Your task to perform on an android device: make emails show in primary in the gmail app Image 0: 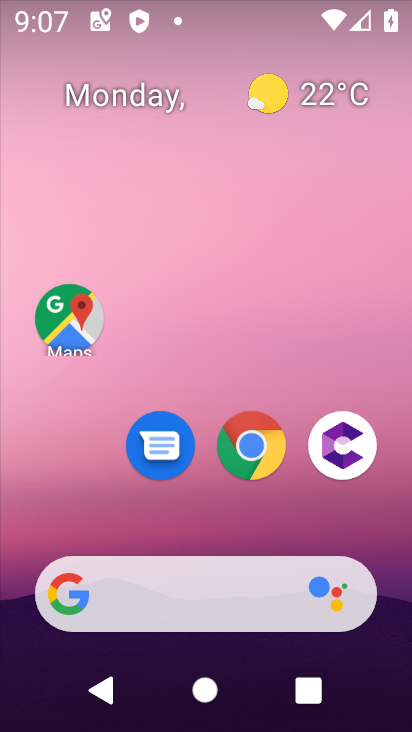
Step 0: press home button
Your task to perform on an android device: make emails show in primary in the gmail app Image 1: 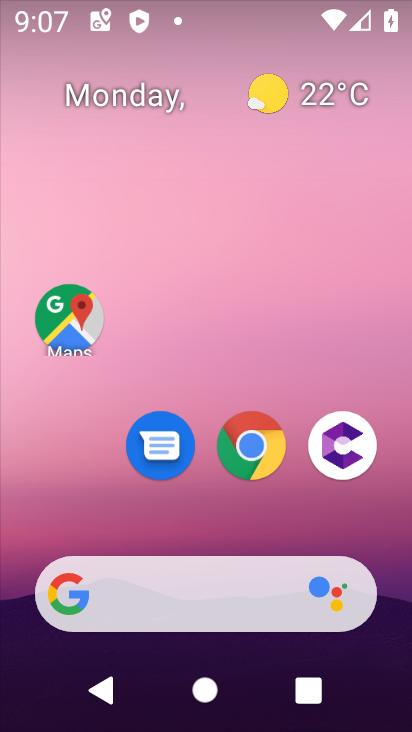
Step 1: drag from (227, 435) to (279, 67)
Your task to perform on an android device: make emails show in primary in the gmail app Image 2: 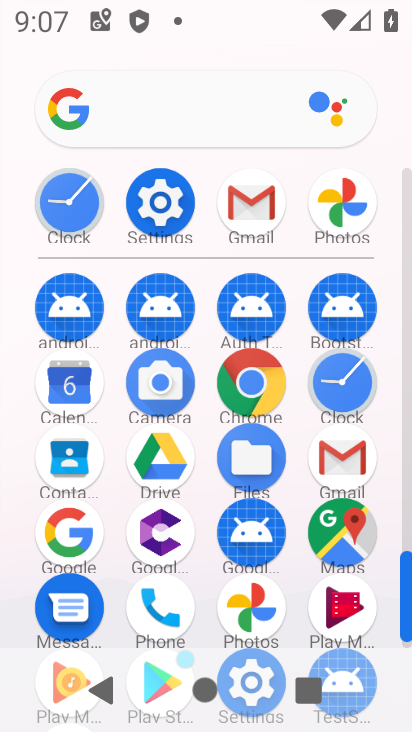
Step 2: click (246, 213)
Your task to perform on an android device: make emails show in primary in the gmail app Image 3: 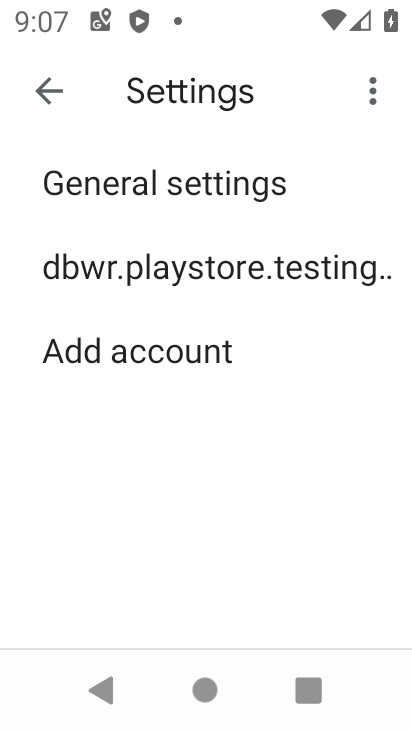
Step 3: click (169, 283)
Your task to perform on an android device: make emails show in primary in the gmail app Image 4: 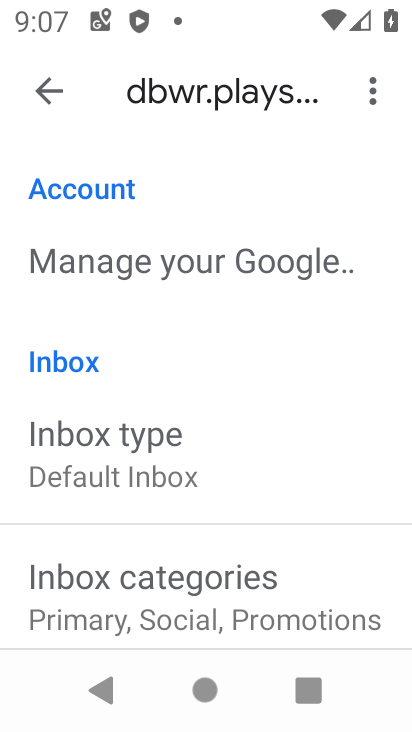
Step 4: click (155, 574)
Your task to perform on an android device: make emails show in primary in the gmail app Image 5: 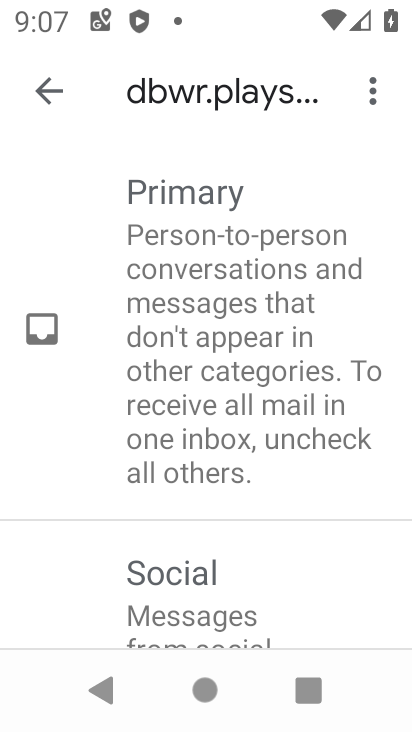
Step 5: drag from (313, 552) to (349, 206)
Your task to perform on an android device: make emails show in primary in the gmail app Image 6: 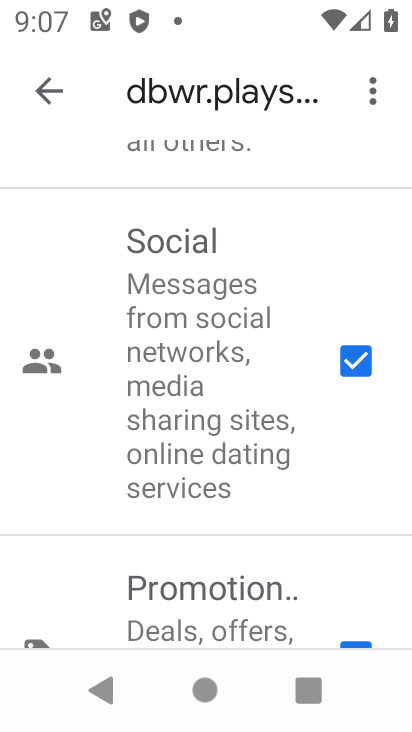
Step 6: click (343, 361)
Your task to perform on an android device: make emails show in primary in the gmail app Image 7: 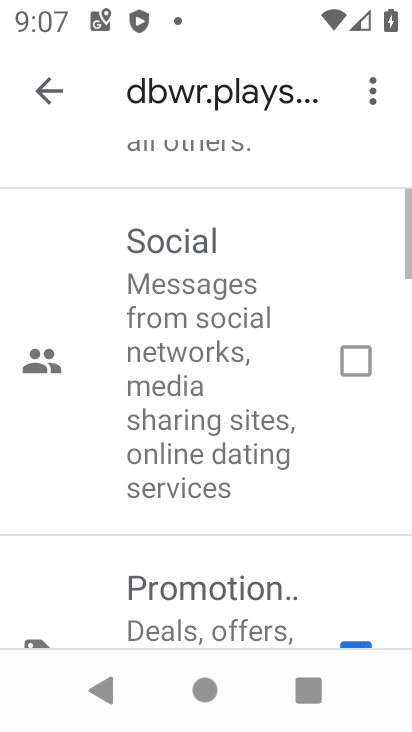
Step 7: drag from (335, 452) to (378, 152)
Your task to perform on an android device: make emails show in primary in the gmail app Image 8: 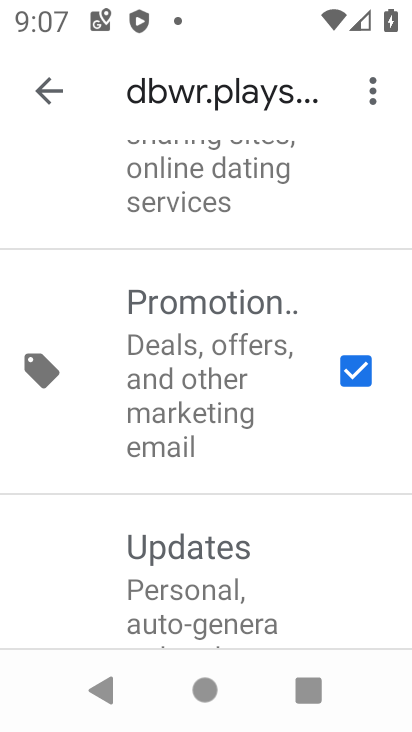
Step 8: click (359, 377)
Your task to perform on an android device: make emails show in primary in the gmail app Image 9: 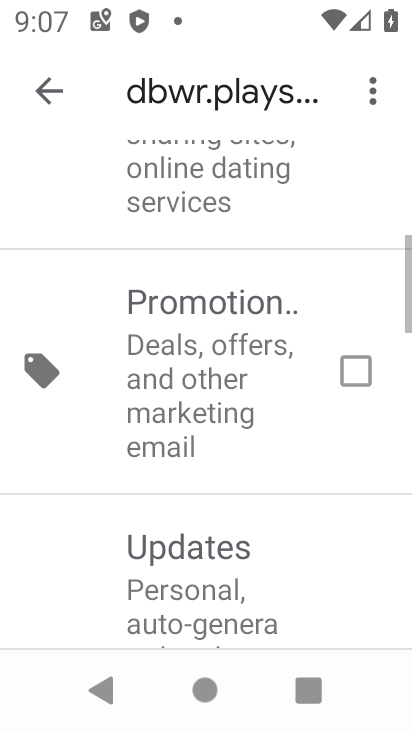
Step 9: drag from (354, 523) to (404, 145)
Your task to perform on an android device: make emails show in primary in the gmail app Image 10: 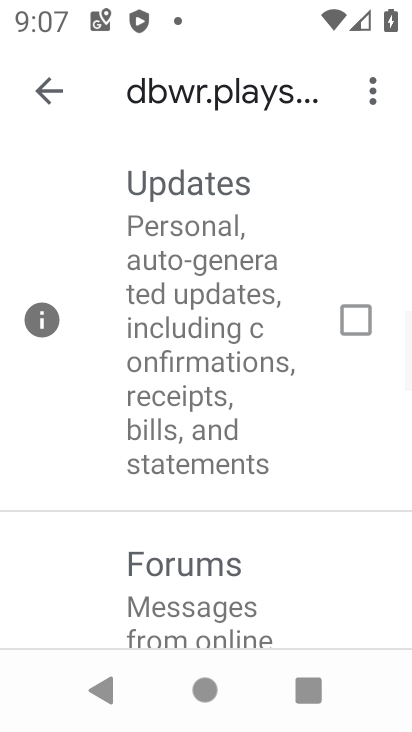
Step 10: drag from (342, 555) to (407, 289)
Your task to perform on an android device: make emails show in primary in the gmail app Image 11: 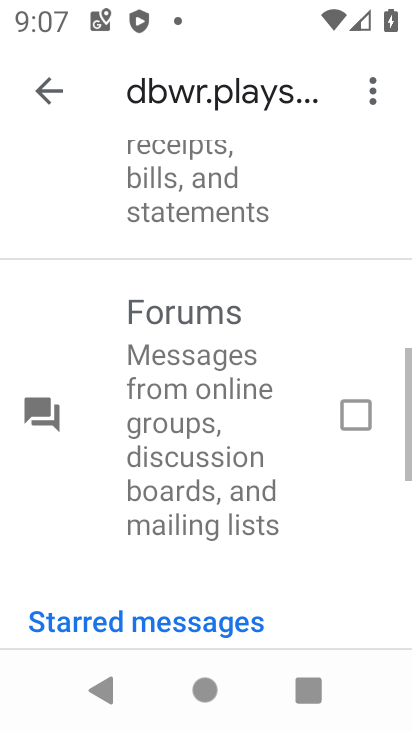
Step 11: drag from (311, 540) to (388, 141)
Your task to perform on an android device: make emails show in primary in the gmail app Image 12: 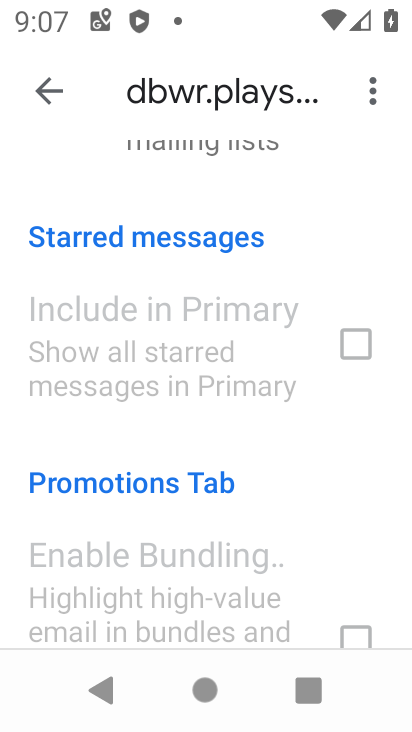
Step 12: drag from (369, 314) to (402, 134)
Your task to perform on an android device: make emails show in primary in the gmail app Image 13: 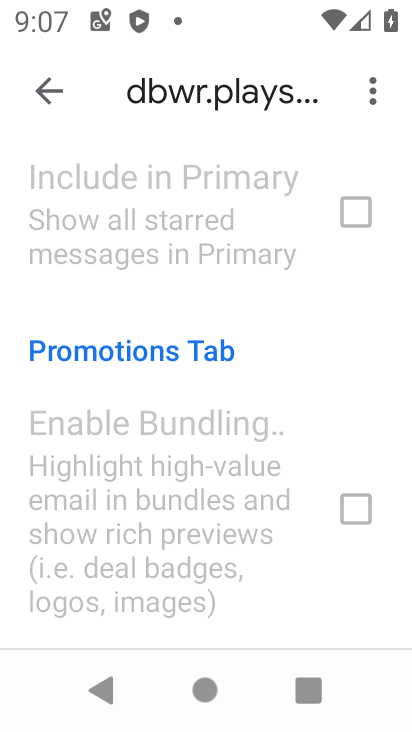
Step 13: drag from (346, 299) to (299, 531)
Your task to perform on an android device: make emails show in primary in the gmail app Image 14: 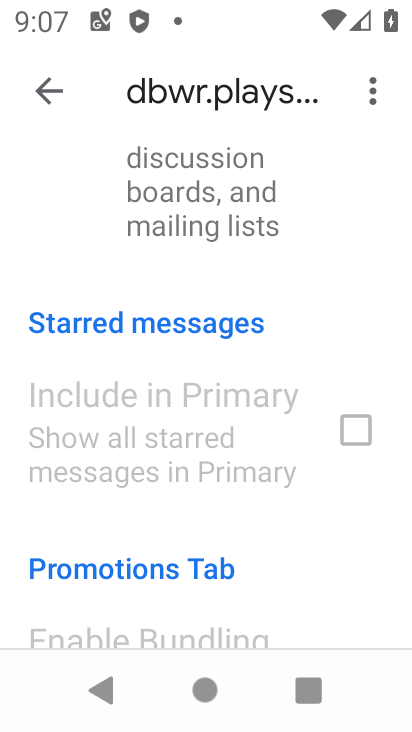
Step 14: click (353, 428)
Your task to perform on an android device: make emails show in primary in the gmail app Image 15: 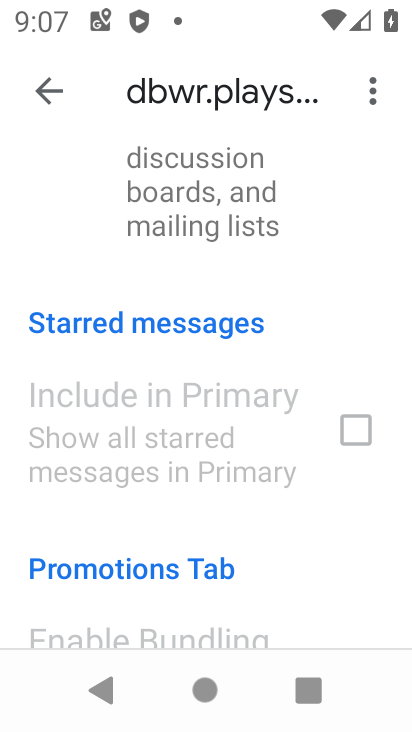
Step 15: task complete